Your task to perform on an android device: Go to Maps Image 0: 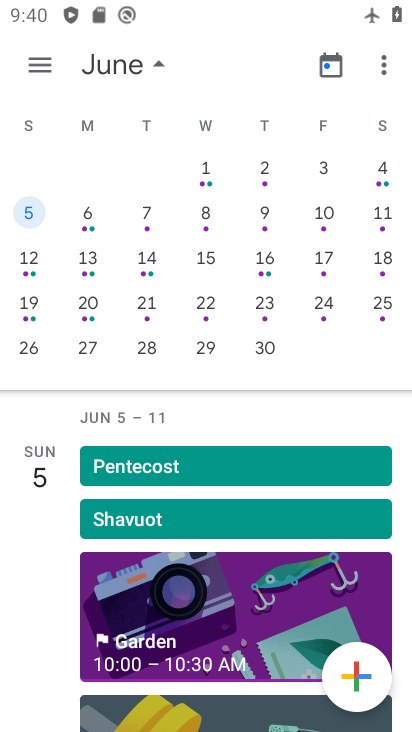
Step 0: press home button
Your task to perform on an android device: Go to Maps Image 1: 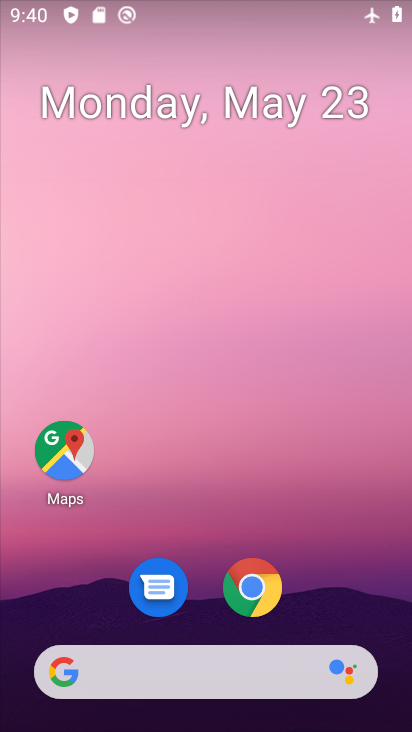
Step 1: drag from (356, 591) to (371, 16)
Your task to perform on an android device: Go to Maps Image 2: 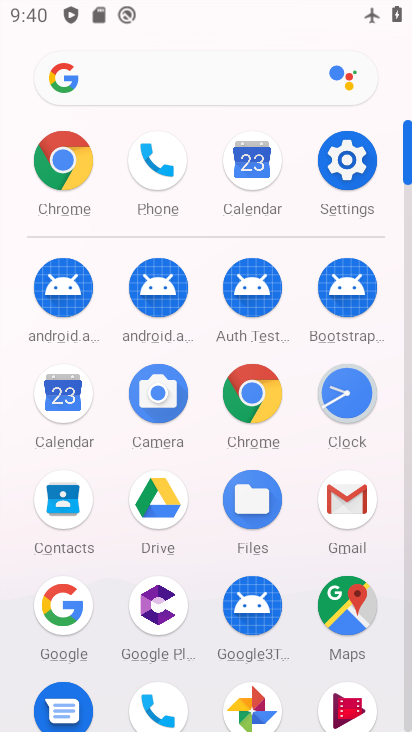
Step 2: click (349, 614)
Your task to perform on an android device: Go to Maps Image 3: 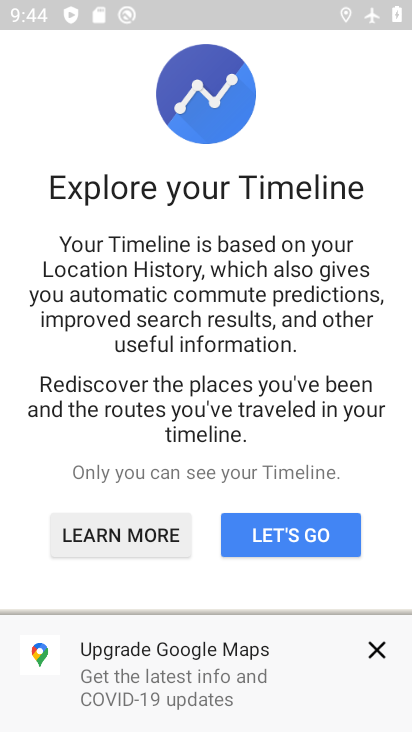
Step 3: press home button
Your task to perform on an android device: Go to Maps Image 4: 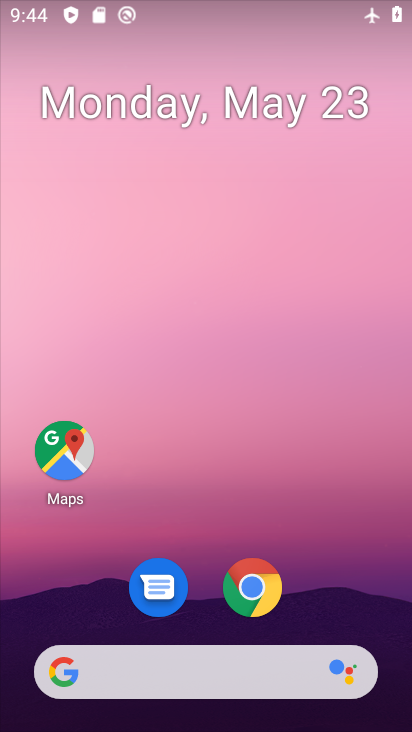
Step 4: drag from (332, 507) to (395, 0)
Your task to perform on an android device: Go to Maps Image 5: 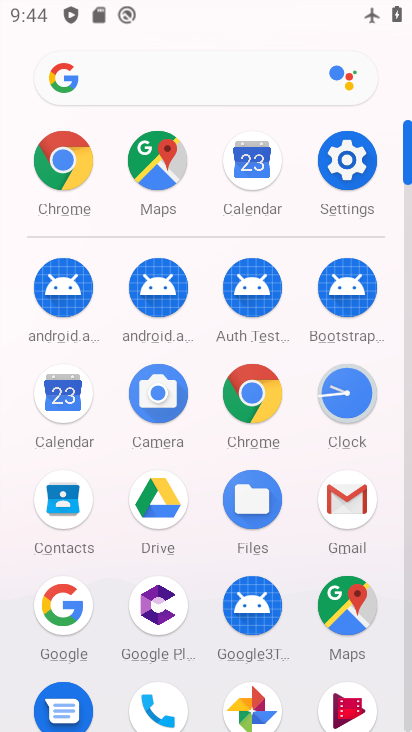
Step 5: click (181, 163)
Your task to perform on an android device: Go to Maps Image 6: 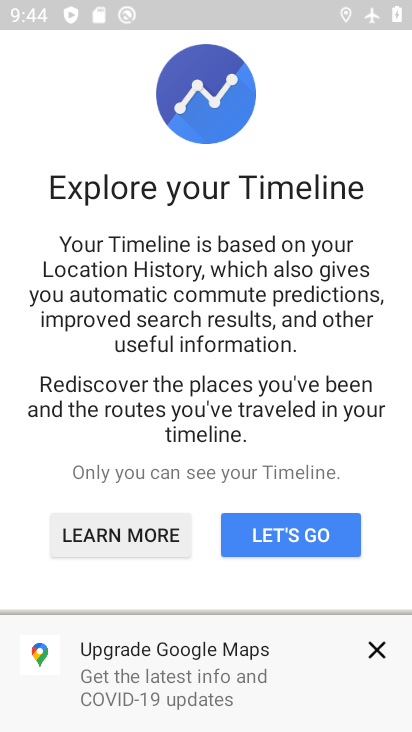
Step 6: task complete